Your task to perform on an android device: choose inbox layout in the gmail app Image 0: 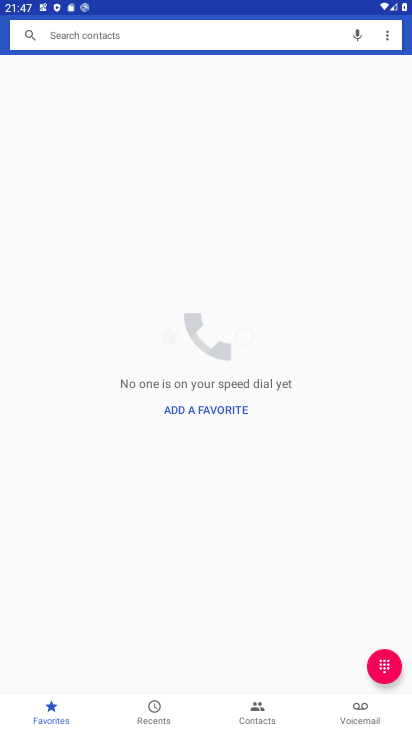
Step 0: press home button
Your task to perform on an android device: choose inbox layout in the gmail app Image 1: 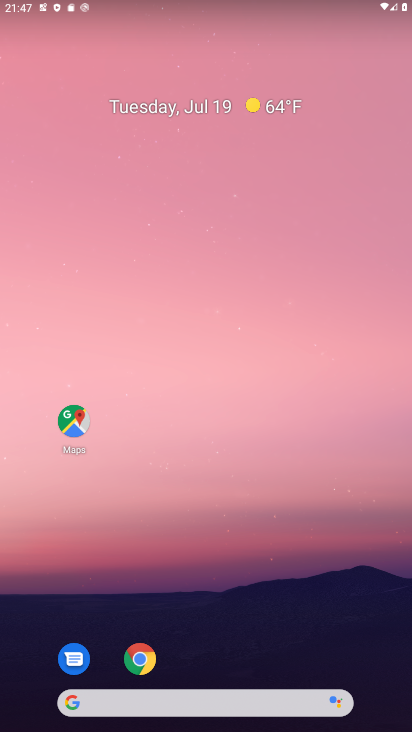
Step 1: drag from (207, 663) to (205, 71)
Your task to perform on an android device: choose inbox layout in the gmail app Image 2: 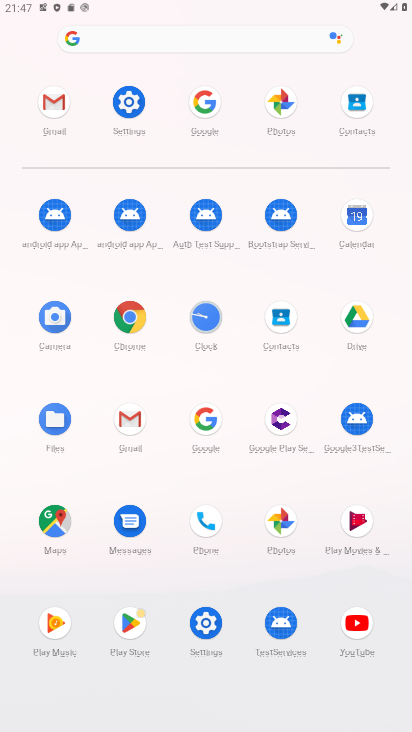
Step 2: click (42, 120)
Your task to perform on an android device: choose inbox layout in the gmail app Image 3: 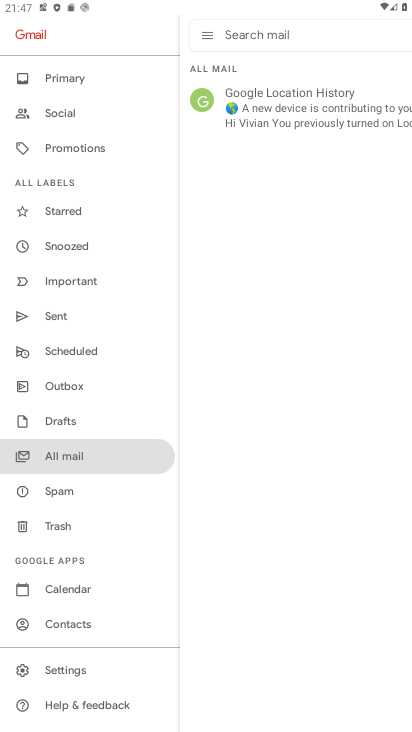
Step 3: click (53, 678)
Your task to perform on an android device: choose inbox layout in the gmail app Image 4: 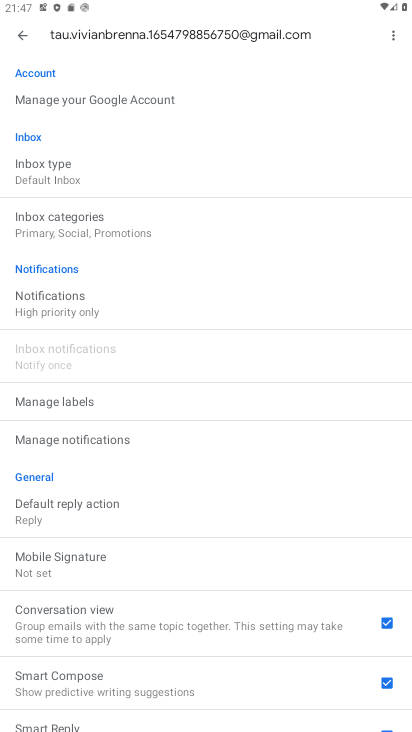
Step 4: click (115, 192)
Your task to perform on an android device: choose inbox layout in the gmail app Image 5: 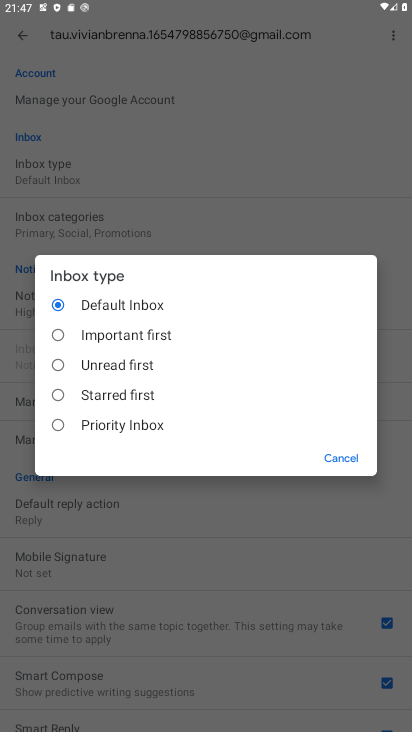
Step 5: click (125, 433)
Your task to perform on an android device: choose inbox layout in the gmail app Image 6: 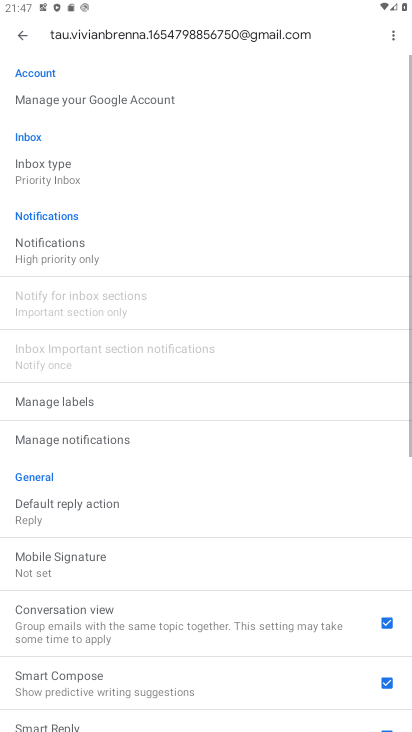
Step 6: task complete